Your task to perform on an android device: change alarm snooze length Image 0: 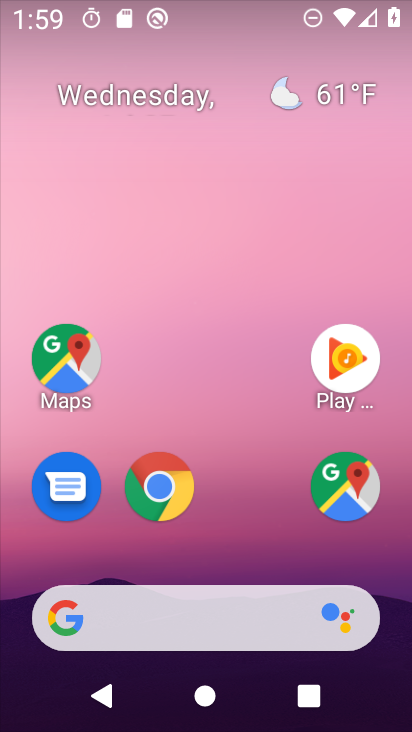
Step 0: press home button
Your task to perform on an android device: change alarm snooze length Image 1: 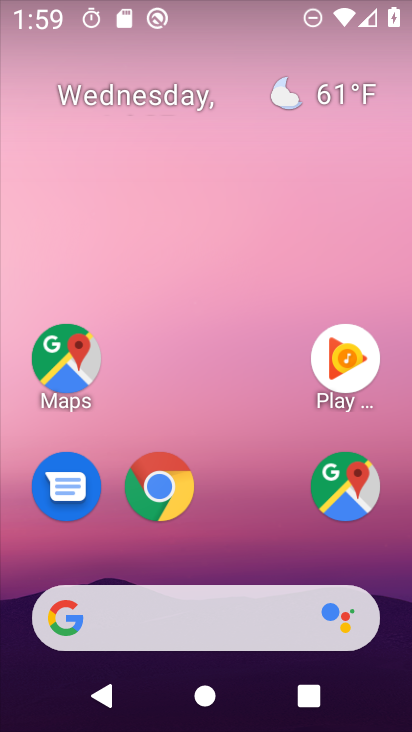
Step 1: drag from (247, 525) to (252, 25)
Your task to perform on an android device: change alarm snooze length Image 2: 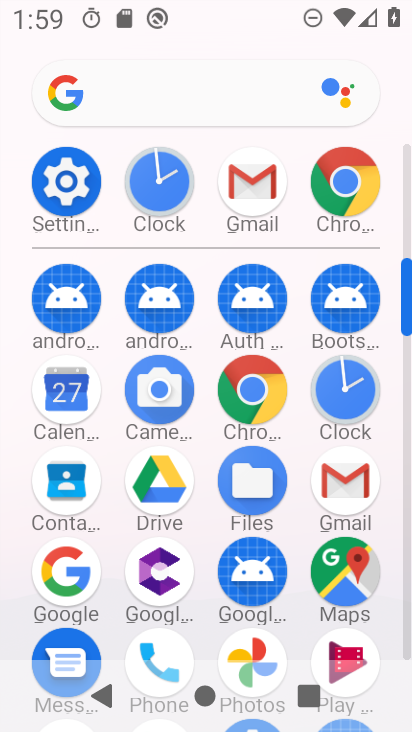
Step 2: click (360, 381)
Your task to perform on an android device: change alarm snooze length Image 3: 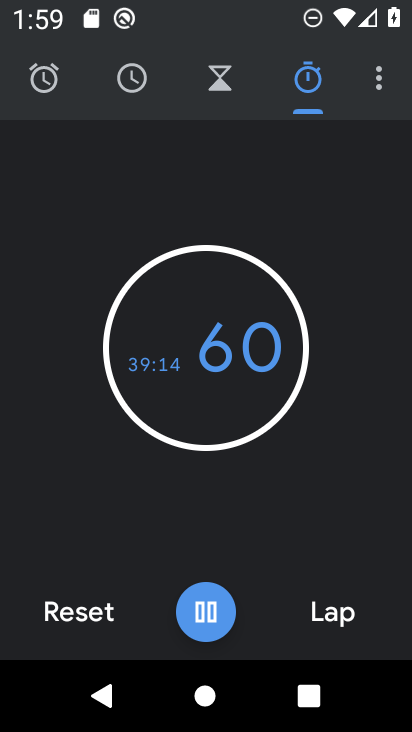
Step 3: click (379, 83)
Your task to perform on an android device: change alarm snooze length Image 4: 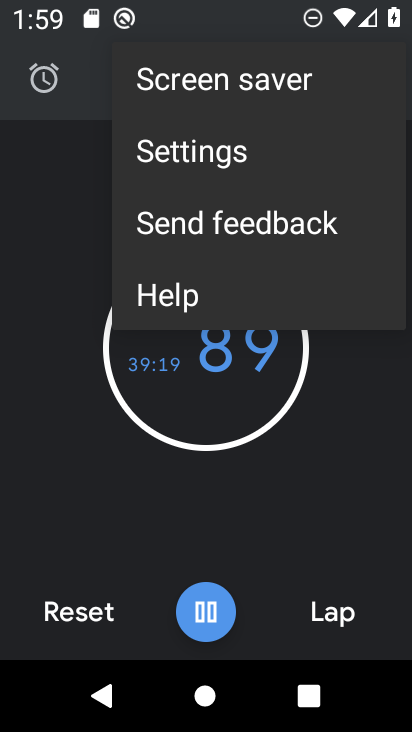
Step 4: click (235, 158)
Your task to perform on an android device: change alarm snooze length Image 5: 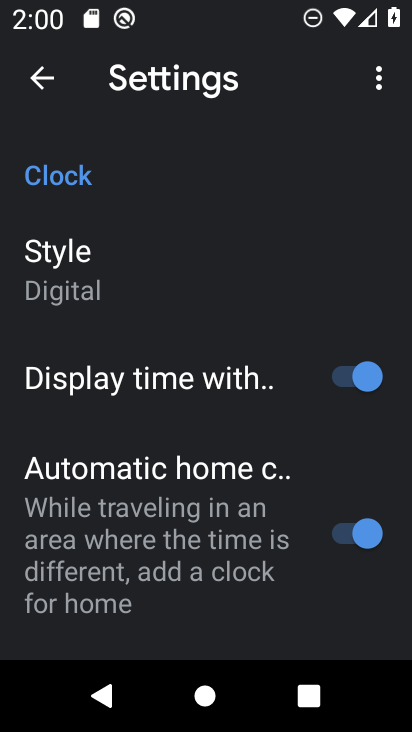
Step 5: drag from (286, 309) to (294, 250)
Your task to perform on an android device: change alarm snooze length Image 6: 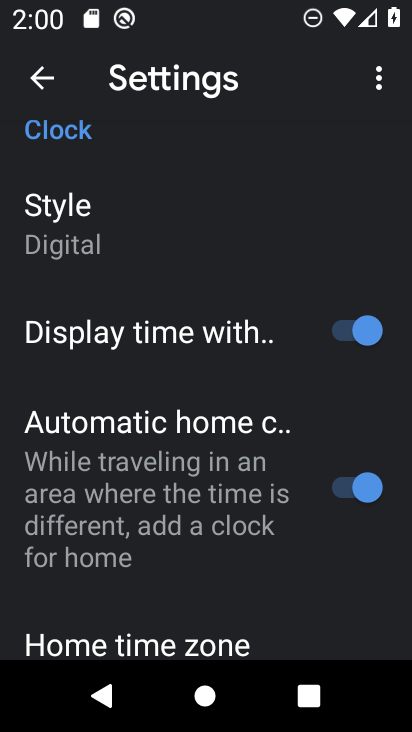
Step 6: drag from (276, 363) to (286, 313)
Your task to perform on an android device: change alarm snooze length Image 7: 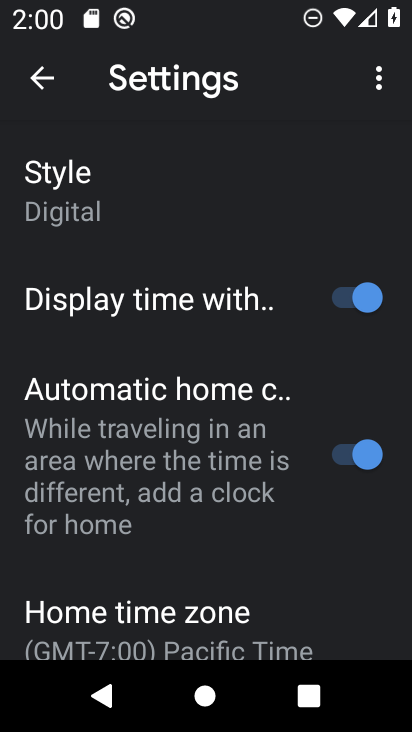
Step 7: drag from (296, 395) to (300, 343)
Your task to perform on an android device: change alarm snooze length Image 8: 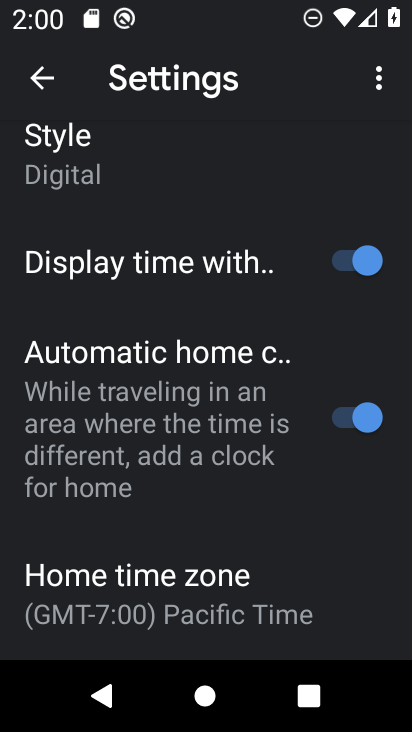
Step 8: drag from (295, 396) to (300, 317)
Your task to perform on an android device: change alarm snooze length Image 9: 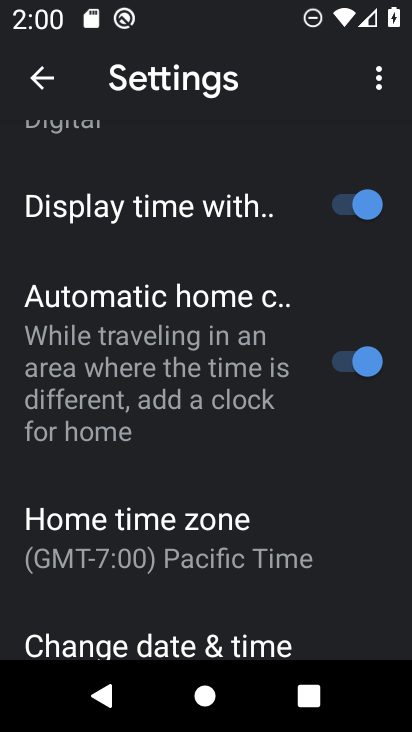
Step 9: drag from (298, 414) to (304, 345)
Your task to perform on an android device: change alarm snooze length Image 10: 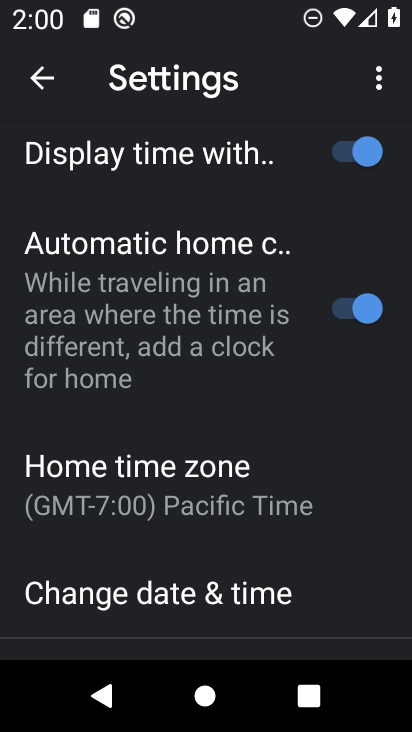
Step 10: drag from (295, 400) to (304, 325)
Your task to perform on an android device: change alarm snooze length Image 11: 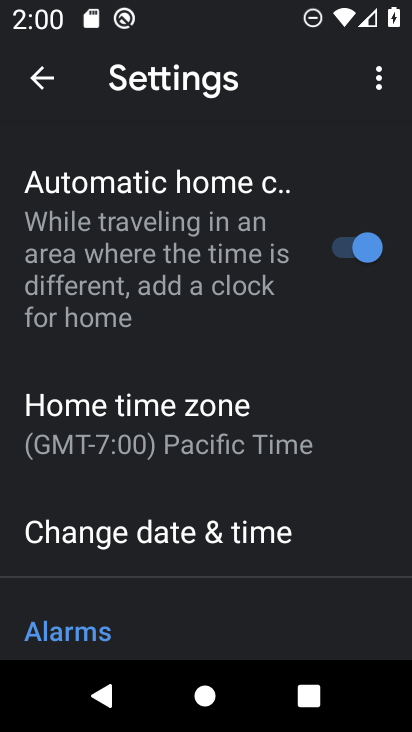
Step 11: drag from (300, 406) to (306, 301)
Your task to perform on an android device: change alarm snooze length Image 12: 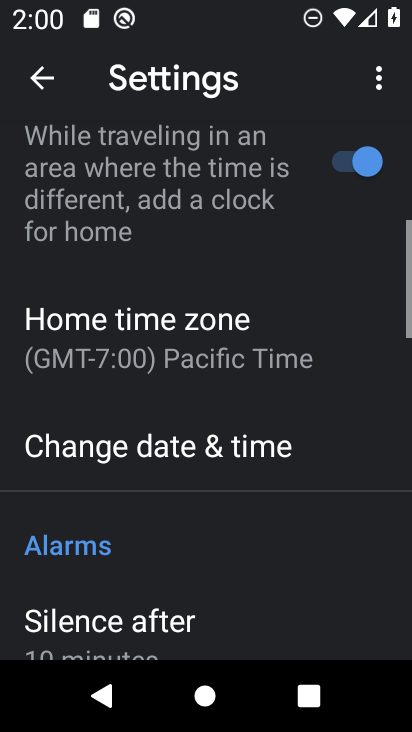
Step 12: drag from (306, 405) to (308, 249)
Your task to perform on an android device: change alarm snooze length Image 13: 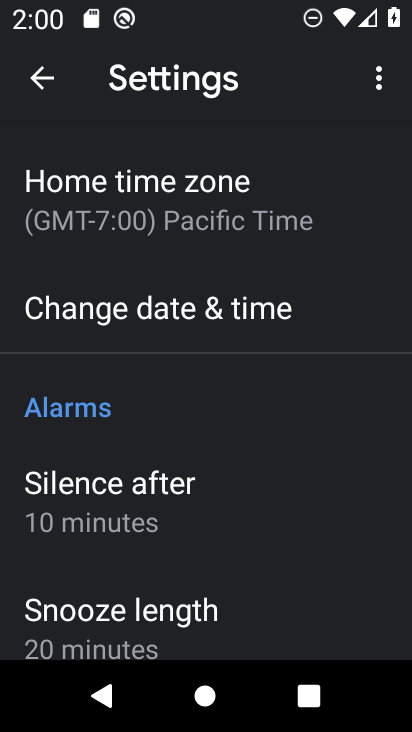
Step 13: drag from (302, 343) to (318, 154)
Your task to perform on an android device: change alarm snooze length Image 14: 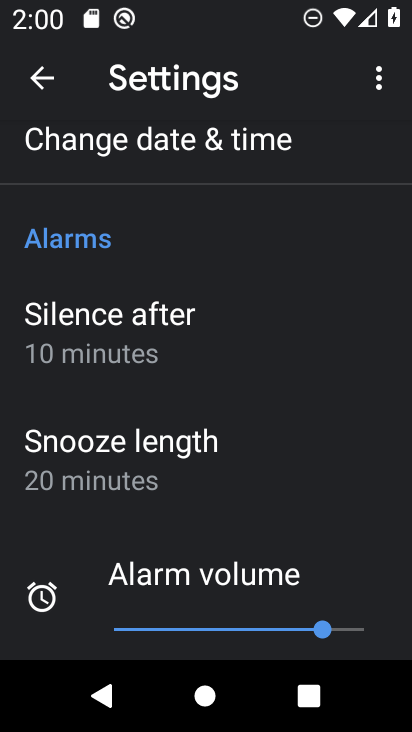
Step 14: drag from (295, 387) to (294, 244)
Your task to perform on an android device: change alarm snooze length Image 15: 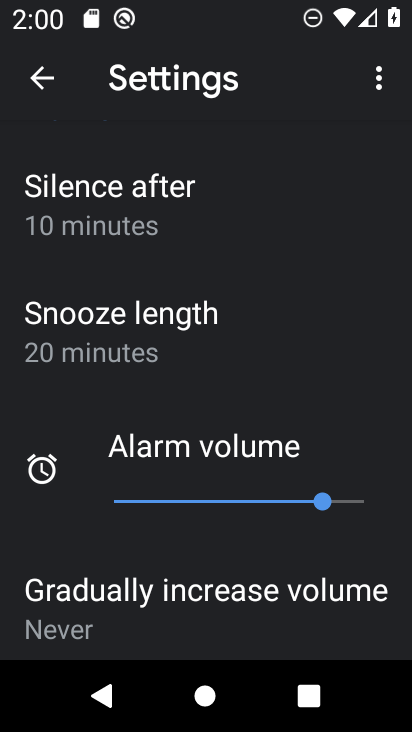
Step 15: click (195, 335)
Your task to perform on an android device: change alarm snooze length Image 16: 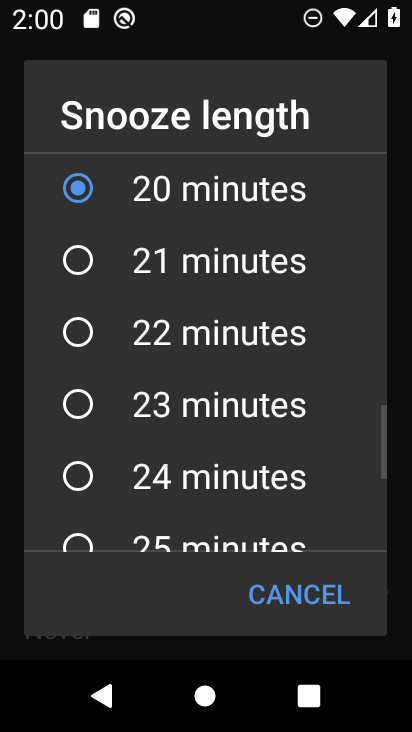
Step 16: click (195, 335)
Your task to perform on an android device: change alarm snooze length Image 17: 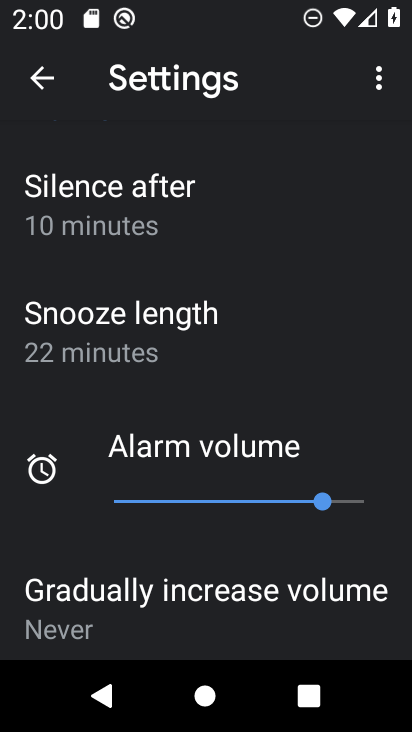
Step 17: task complete